Your task to perform on an android device: install app "Google Translate" Image 0: 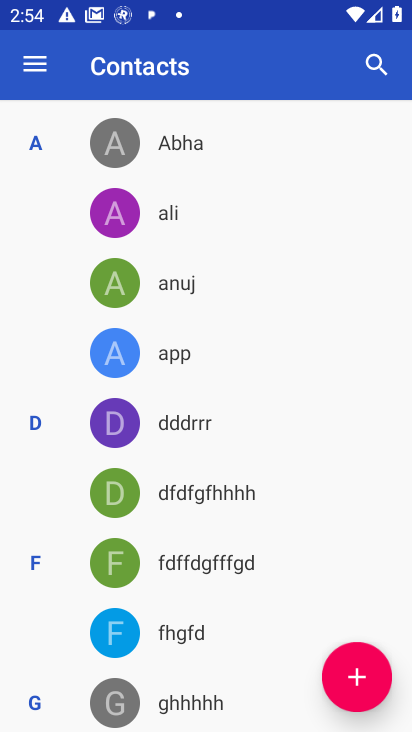
Step 0: press home button
Your task to perform on an android device: install app "Google Translate" Image 1: 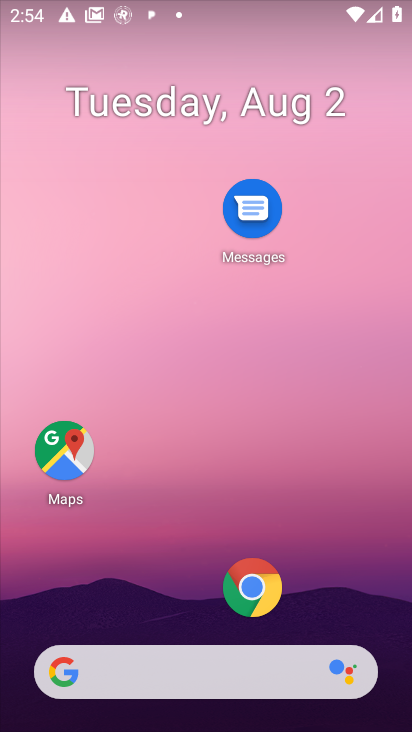
Step 1: drag from (180, 601) to (122, 183)
Your task to perform on an android device: install app "Google Translate" Image 2: 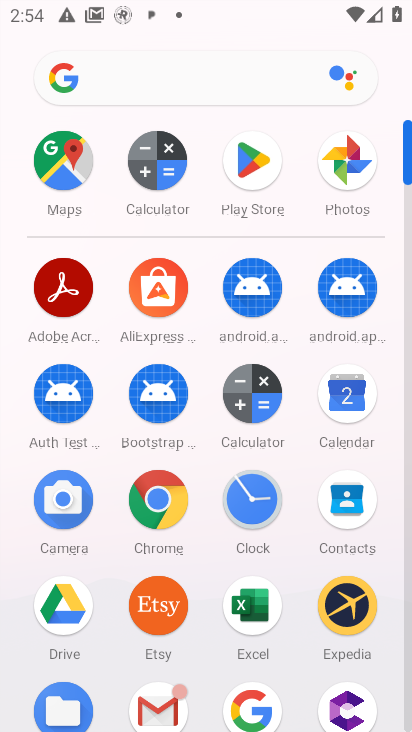
Step 2: click (258, 174)
Your task to perform on an android device: install app "Google Translate" Image 3: 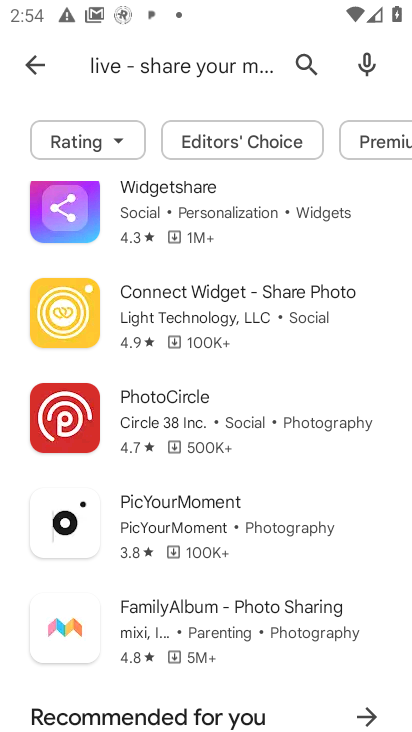
Step 3: click (370, 62)
Your task to perform on an android device: install app "Google Translate" Image 4: 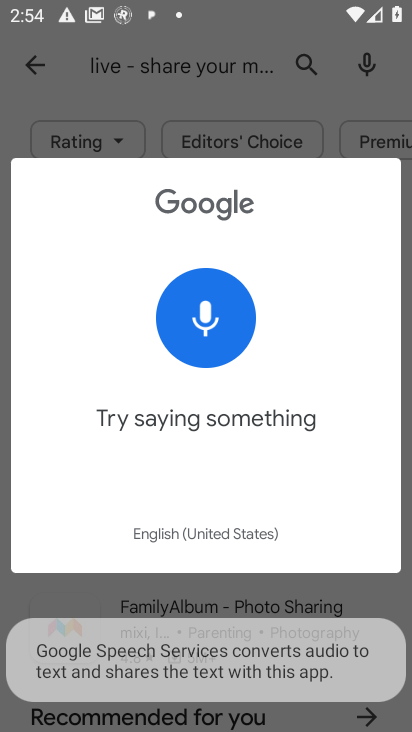
Step 4: click (300, 65)
Your task to perform on an android device: install app "Google Translate" Image 5: 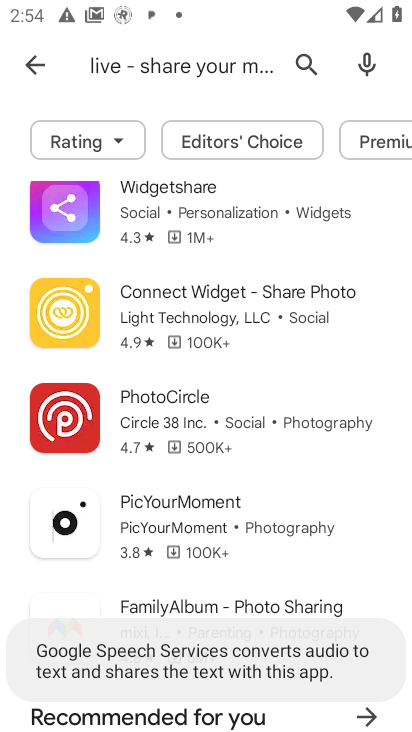
Step 5: click (300, 65)
Your task to perform on an android device: install app "Google Translate" Image 6: 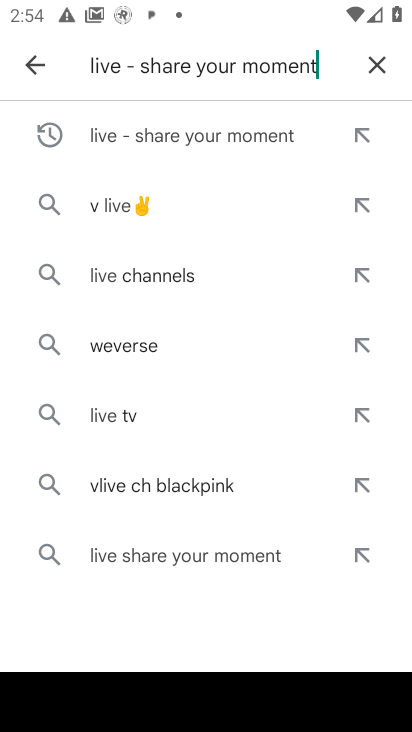
Step 6: click (376, 65)
Your task to perform on an android device: install app "Google Translate" Image 7: 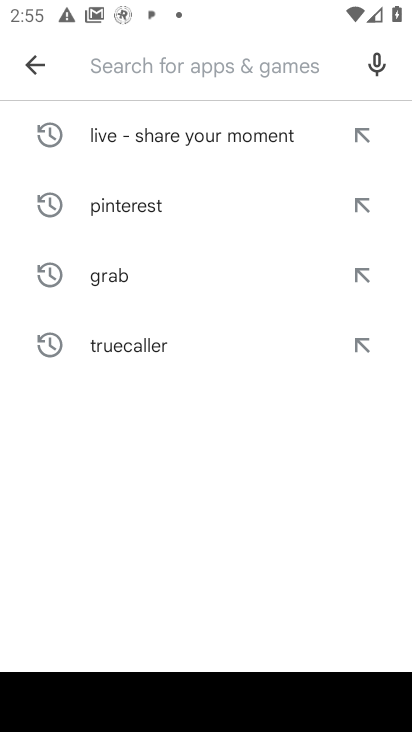
Step 7: type "Google Translate"
Your task to perform on an android device: install app "Google Translate" Image 8: 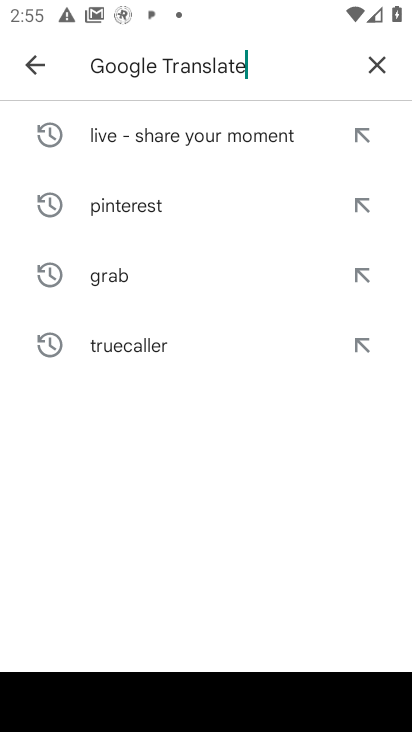
Step 8: type ""
Your task to perform on an android device: install app "Google Translate" Image 9: 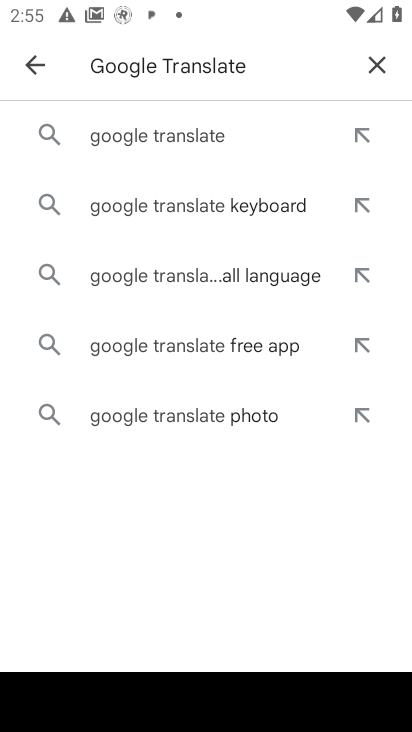
Step 9: click (225, 142)
Your task to perform on an android device: install app "Google Translate" Image 10: 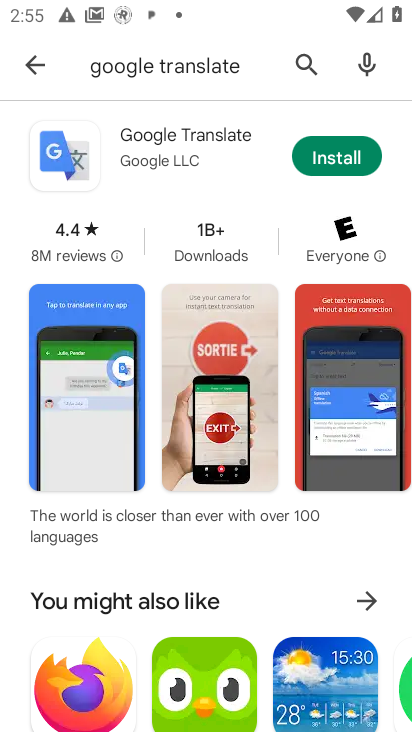
Step 10: click (311, 148)
Your task to perform on an android device: install app "Google Translate" Image 11: 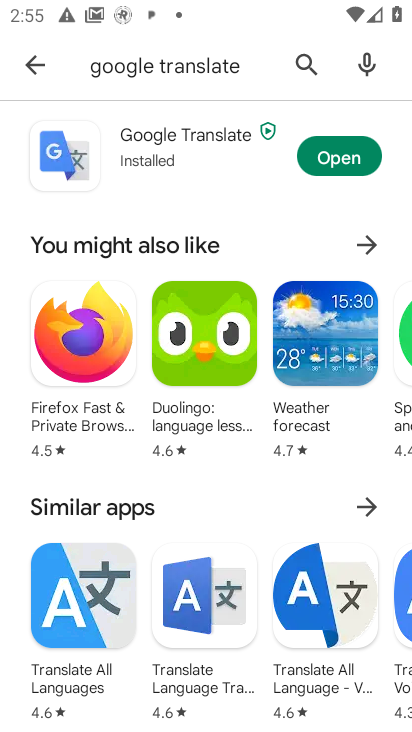
Step 11: task complete